Your task to perform on an android device: delete location history Image 0: 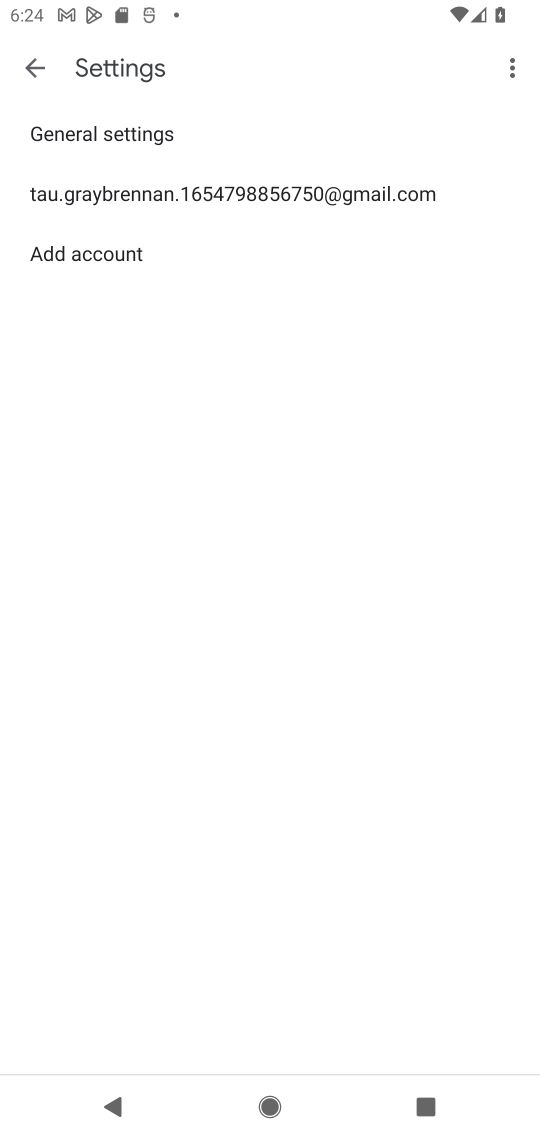
Step 0: press home button
Your task to perform on an android device: delete location history Image 1: 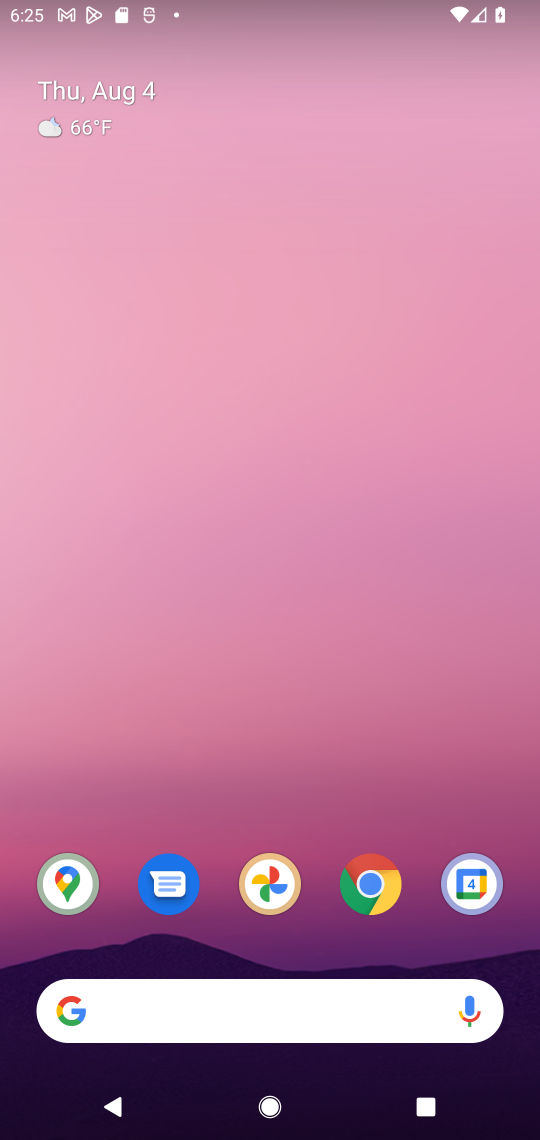
Step 1: drag from (426, 929) to (410, 199)
Your task to perform on an android device: delete location history Image 2: 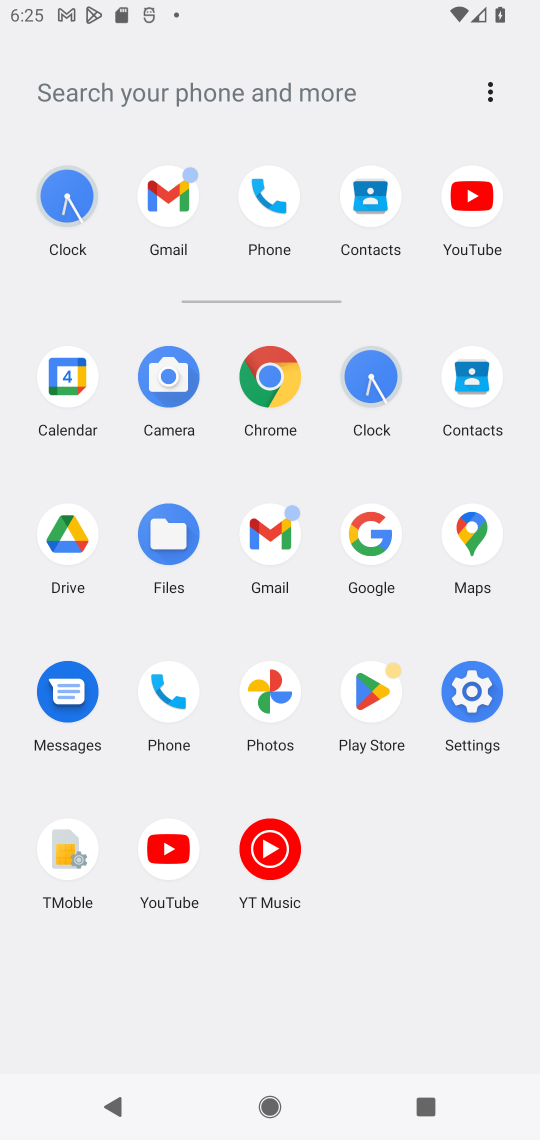
Step 2: click (478, 706)
Your task to perform on an android device: delete location history Image 3: 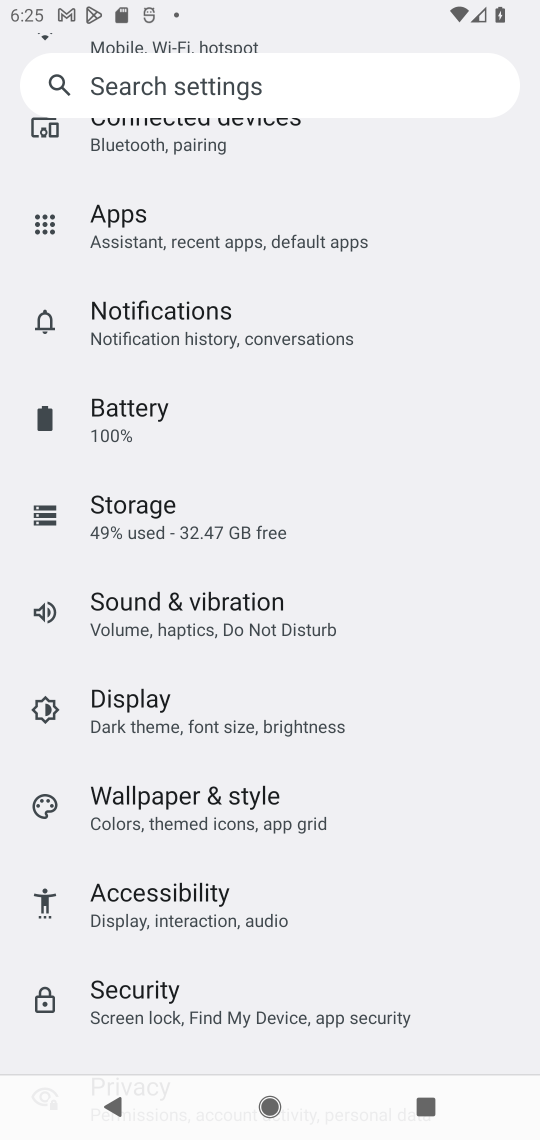
Step 3: task complete